Your task to perform on an android device: turn smart compose on in the gmail app Image 0: 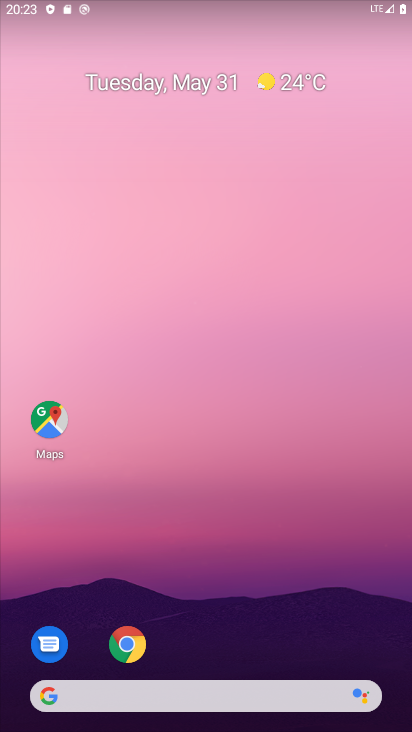
Step 0: drag from (251, 587) to (264, 120)
Your task to perform on an android device: turn smart compose on in the gmail app Image 1: 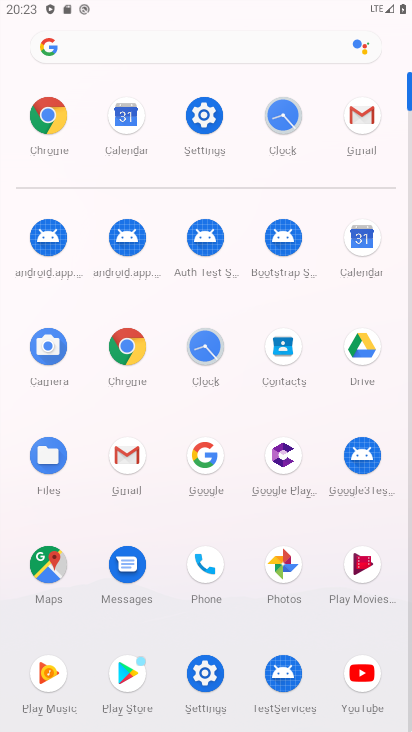
Step 1: click (113, 450)
Your task to perform on an android device: turn smart compose on in the gmail app Image 2: 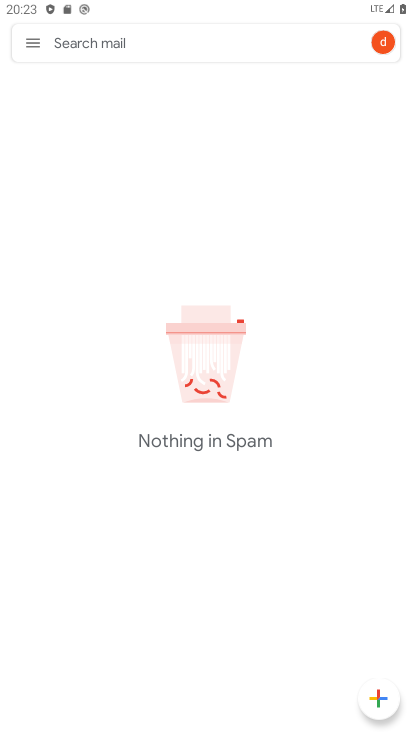
Step 2: click (27, 43)
Your task to perform on an android device: turn smart compose on in the gmail app Image 3: 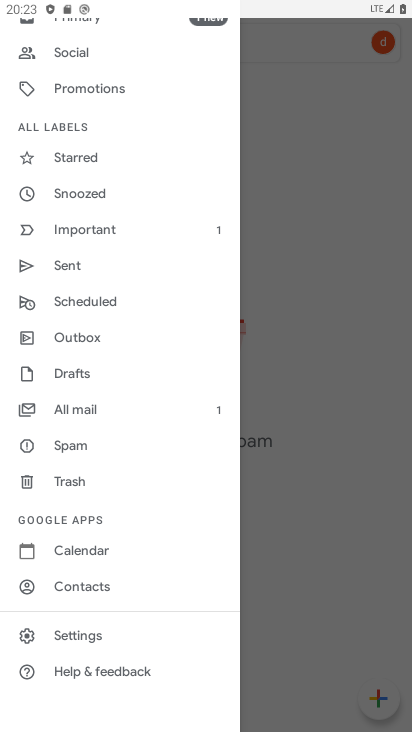
Step 3: click (103, 644)
Your task to perform on an android device: turn smart compose on in the gmail app Image 4: 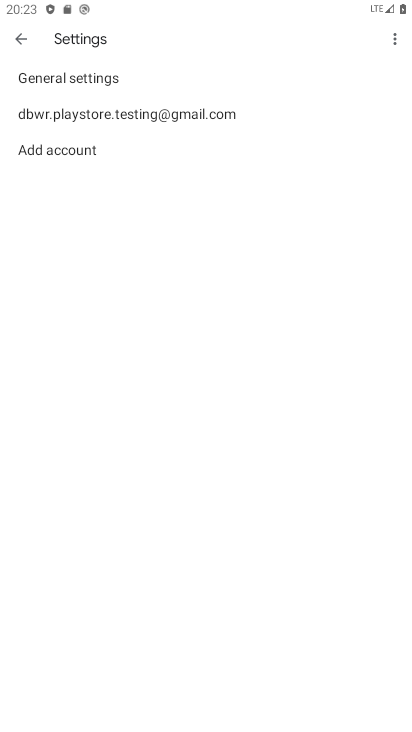
Step 4: click (124, 119)
Your task to perform on an android device: turn smart compose on in the gmail app Image 5: 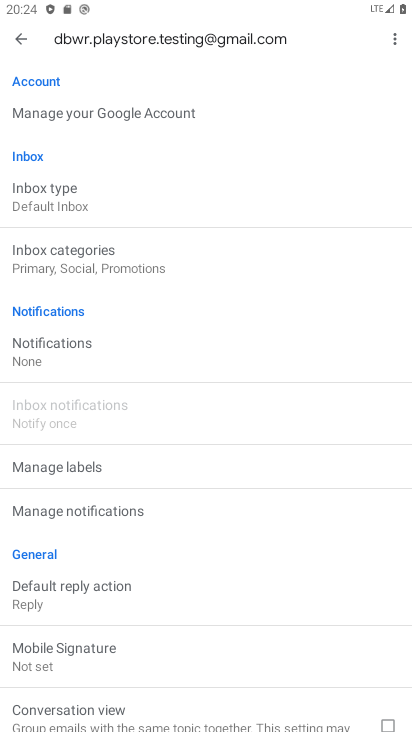
Step 5: task complete